Your task to perform on an android device: toggle pop-ups in chrome Image 0: 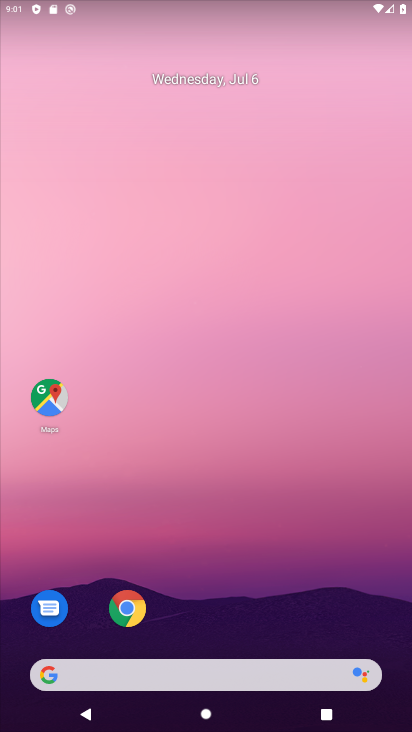
Step 0: click (123, 612)
Your task to perform on an android device: toggle pop-ups in chrome Image 1: 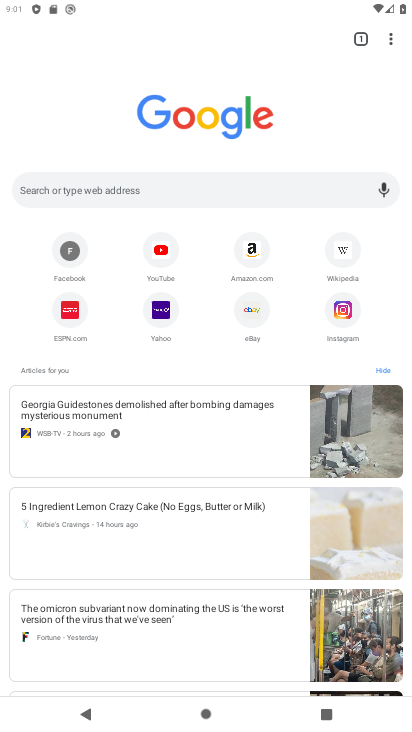
Step 1: click (391, 31)
Your task to perform on an android device: toggle pop-ups in chrome Image 2: 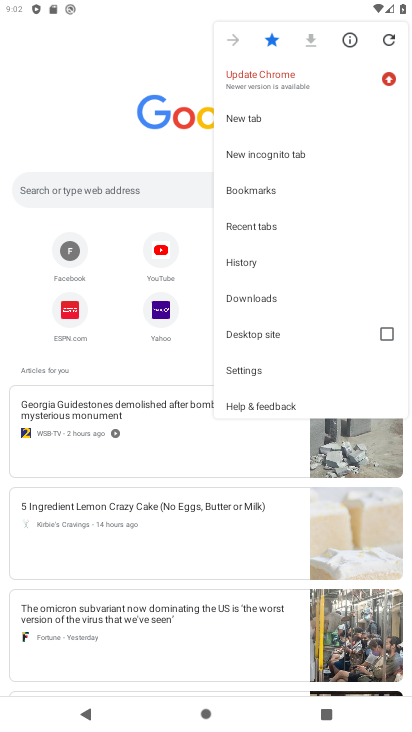
Step 2: click (251, 370)
Your task to perform on an android device: toggle pop-ups in chrome Image 3: 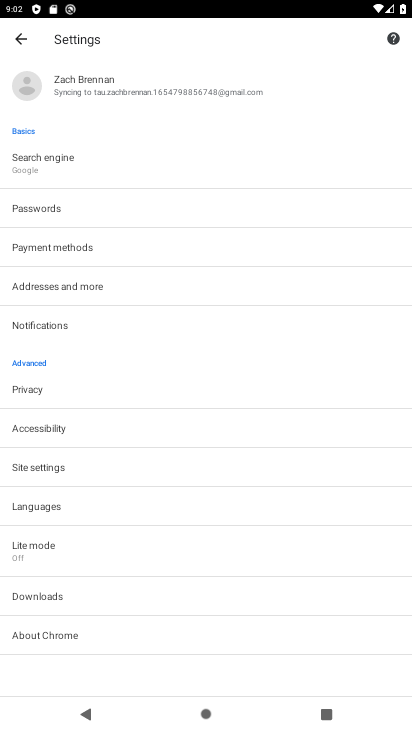
Step 3: click (46, 466)
Your task to perform on an android device: toggle pop-ups in chrome Image 4: 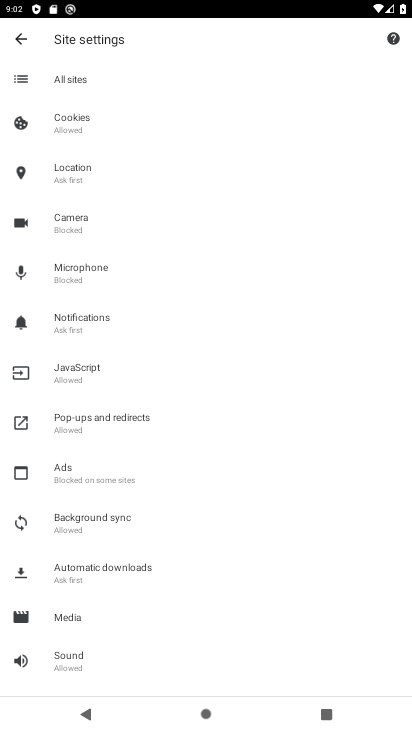
Step 4: click (79, 418)
Your task to perform on an android device: toggle pop-ups in chrome Image 5: 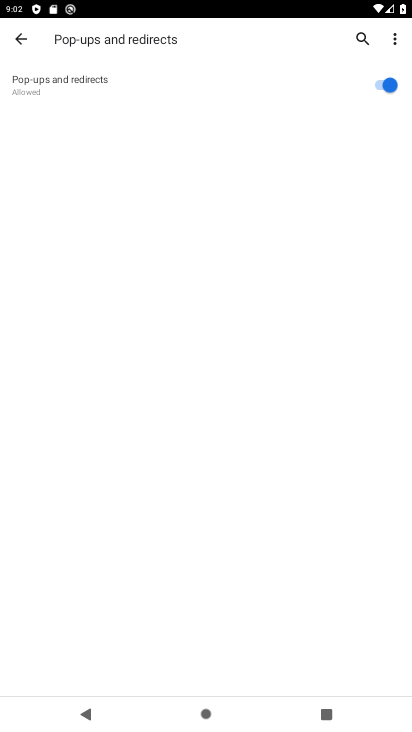
Step 5: click (390, 79)
Your task to perform on an android device: toggle pop-ups in chrome Image 6: 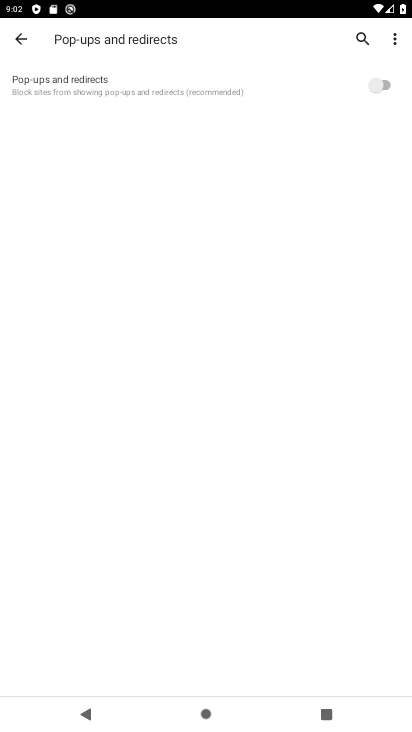
Step 6: task complete